Your task to perform on an android device: Open wifi settings Image 0: 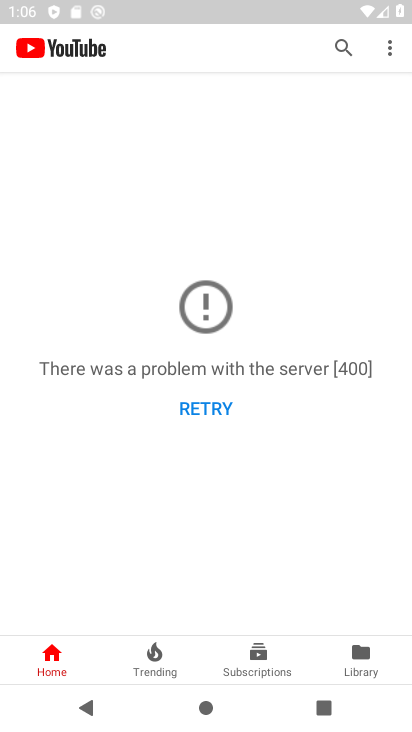
Step 0: drag from (347, 6) to (265, 500)
Your task to perform on an android device: Open wifi settings Image 1: 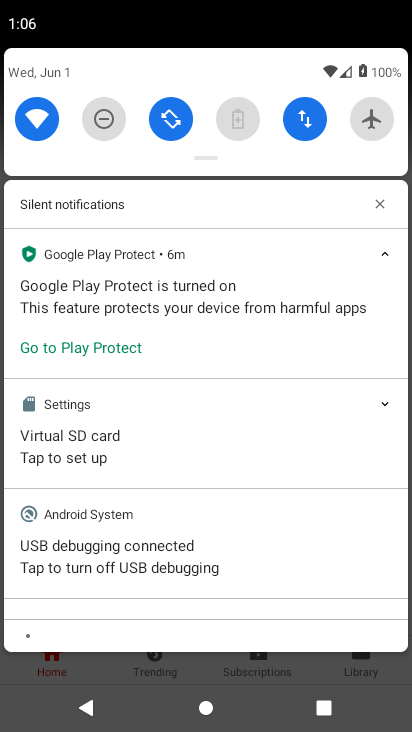
Step 1: click (34, 122)
Your task to perform on an android device: Open wifi settings Image 2: 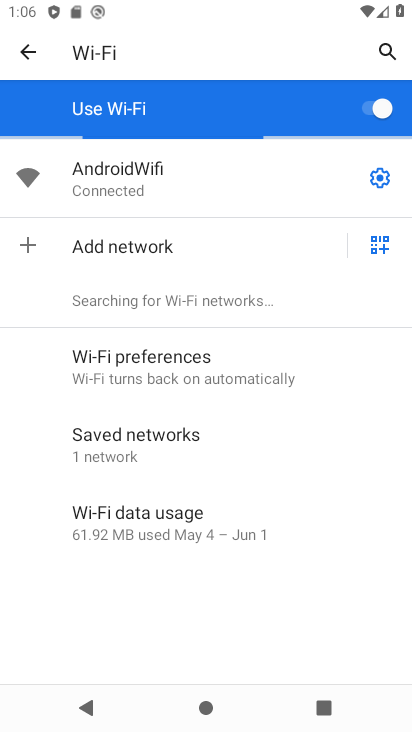
Step 2: task complete